Your task to perform on an android device: snooze an email in the gmail app Image 0: 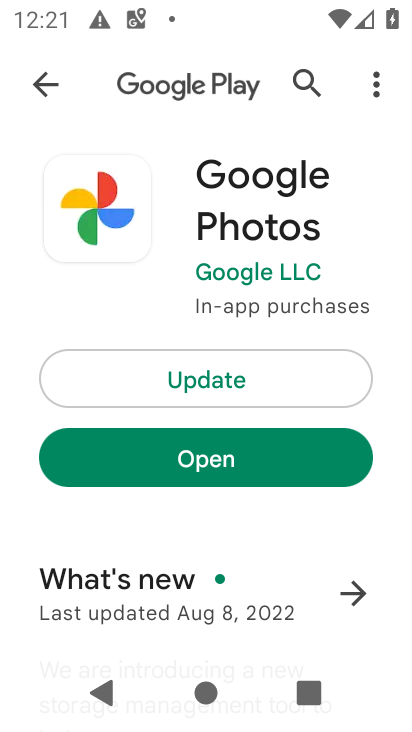
Step 0: press home button
Your task to perform on an android device: snooze an email in the gmail app Image 1: 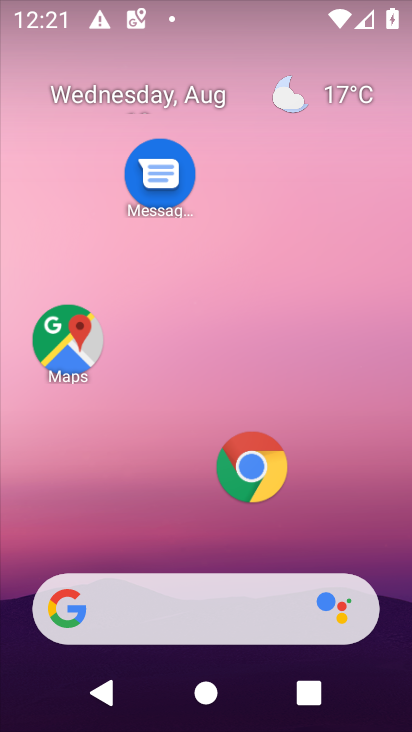
Step 1: drag from (160, 553) to (256, 35)
Your task to perform on an android device: snooze an email in the gmail app Image 2: 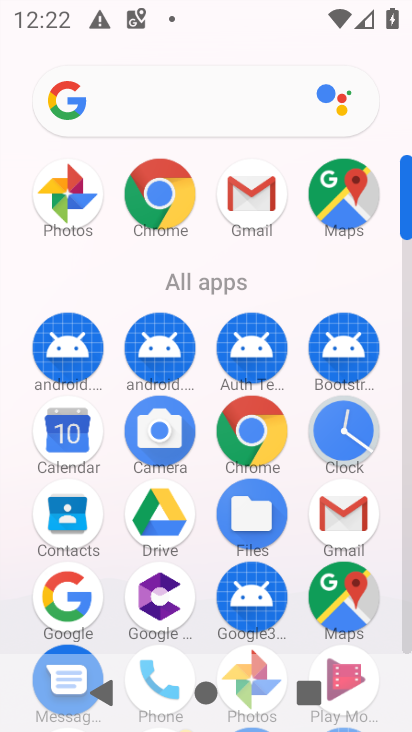
Step 2: click (249, 203)
Your task to perform on an android device: snooze an email in the gmail app Image 3: 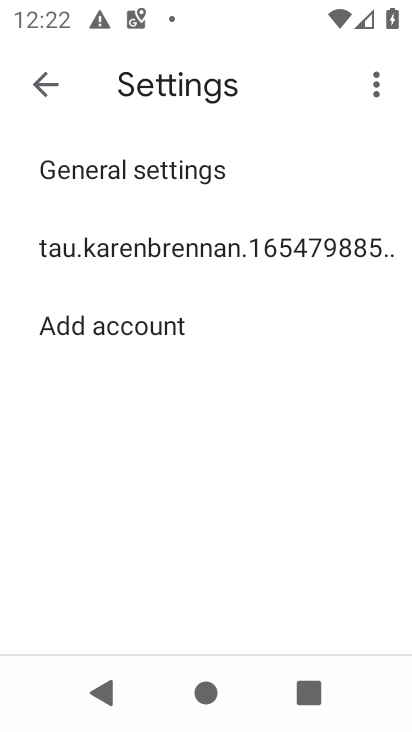
Step 3: click (39, 81)
Your task to perform on an android device: snooze an email in the gmail app Image 4: 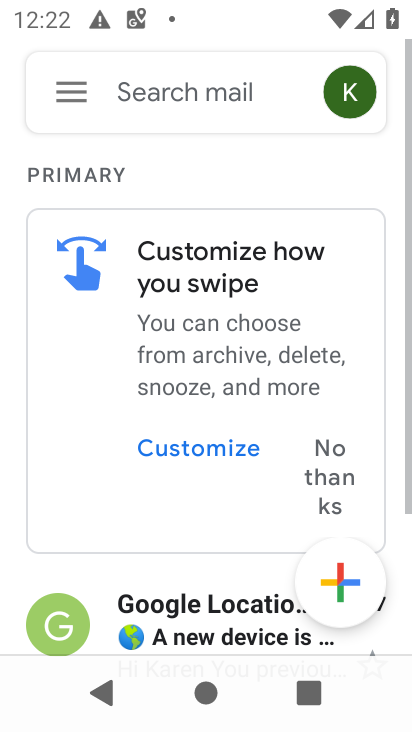
Step 4: click (39, 81)
Your task to perform on an android device: snooze an email in the gmail app Image 5: 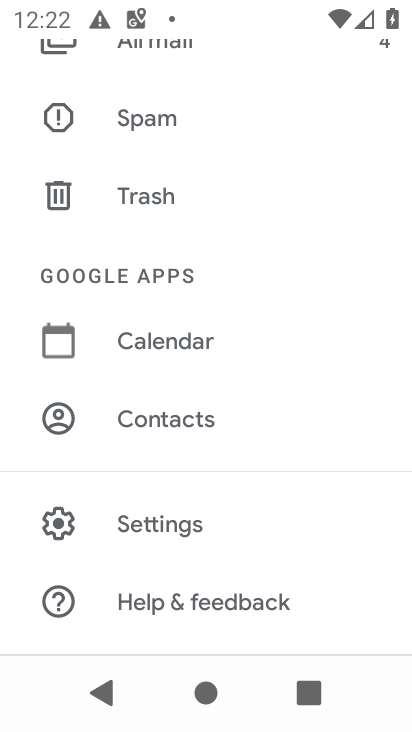
Step 5: drag from (177, 138) to (210, 498)
Your task to perform on an android device: snooze an email in the gmail app Image 6: 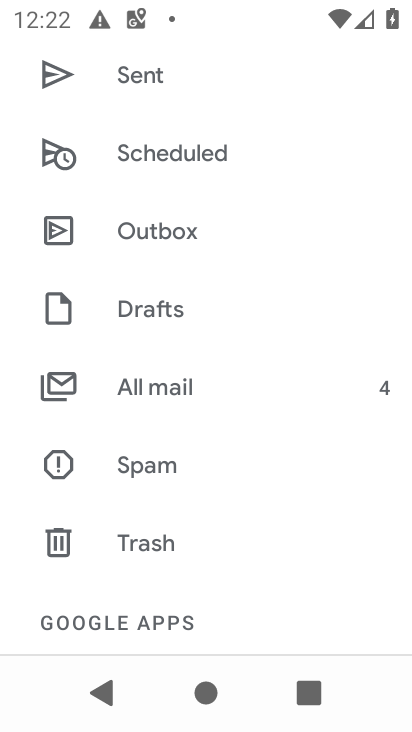
Step 6: click (213, 382)
Your task to perform on an android device: snooze an email in the gmail app Image 7: 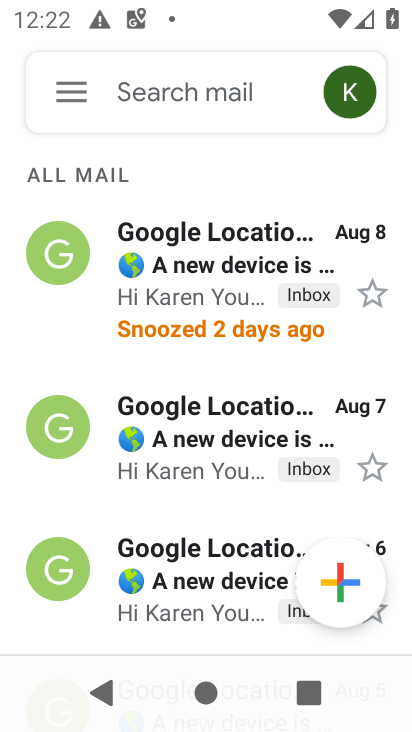
Step 7: click (82, 260)
Your task to perform on an android device: snooze an email in the gmail app Image 8: 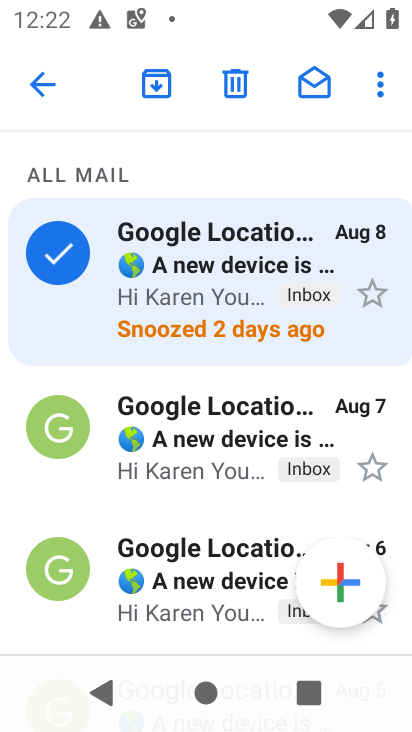
Step 8: click (395, 77)
Your task to perform on an android device: snooze an email in the gmail app Image 9: 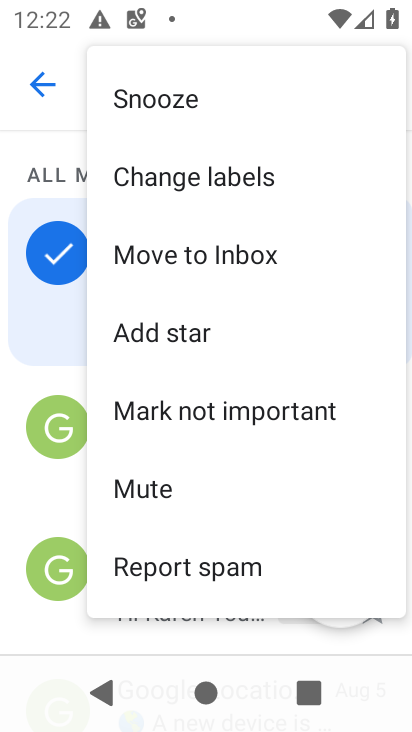
Step 9: click (216, 115)
Your task to perform on an android device: snooze an email in the gmail app Image 10: 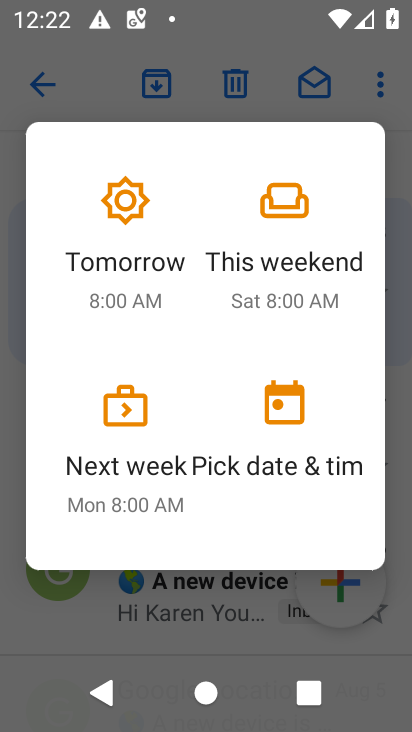
Step 10: click (327, 307)
Your task to perform on an android device: snooze an email in the gmail app Image 11: 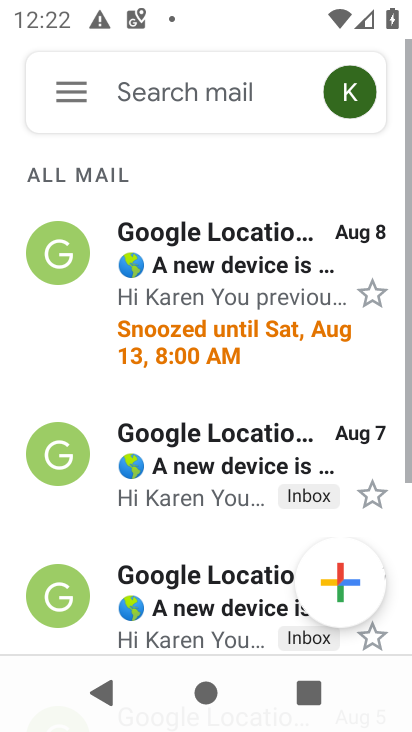
Step 11: task complete